Your task to perform on an android device: turn on javascript in the chrome app Image 0: 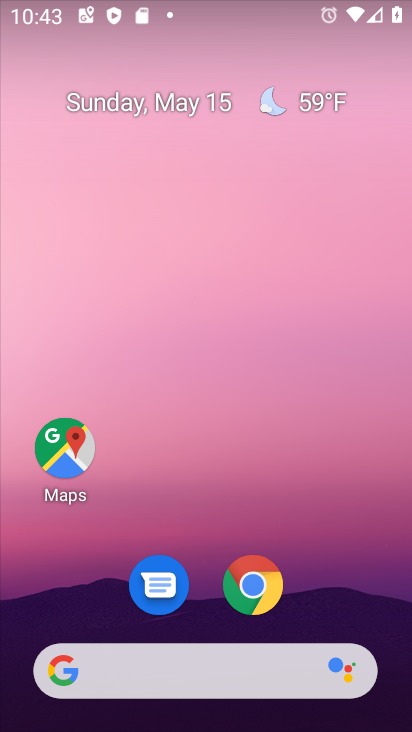
Step 0: click (275, 606)
Your task to perform on an android device: turn on javascript in the chrome app Image 1: 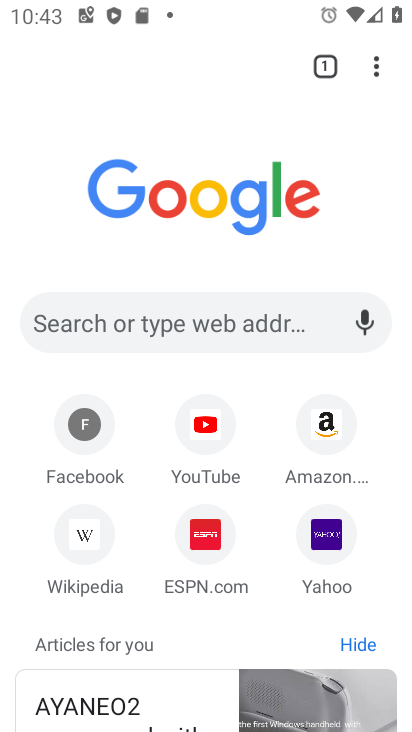
Step 1: click (374, 69)
Your task to perform on an android device: turn on javascript in the chrome app Image 2: 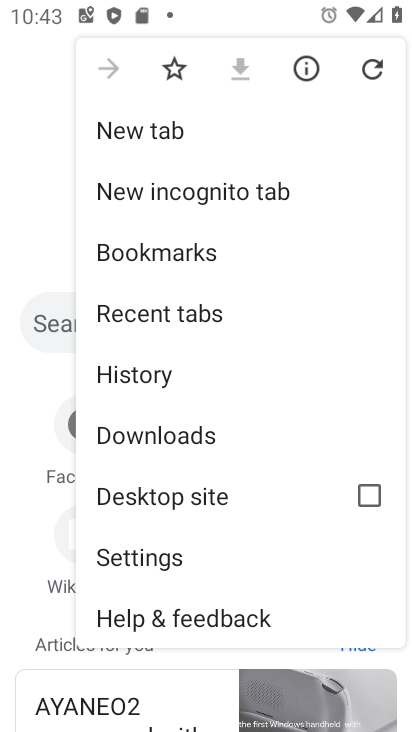
Step 2: click (174, 556)
Your task to perform on an android device: turn on javascript in the chrome app Image 3: 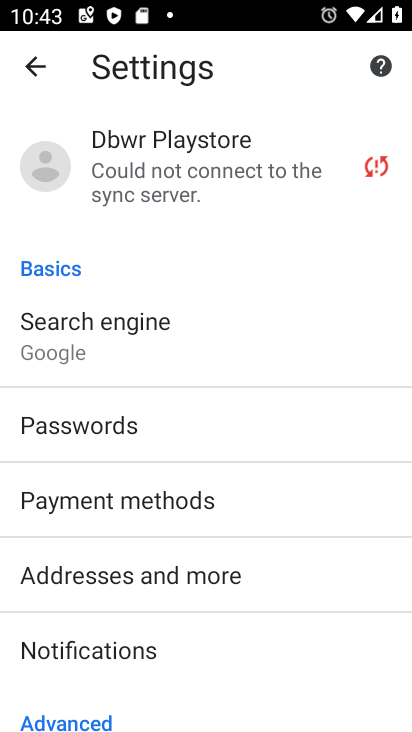
Step 3: drag from (236, 636) to (269, 250)
Your task to perform on an android device: turn on javascript in the chrome app Image 4: 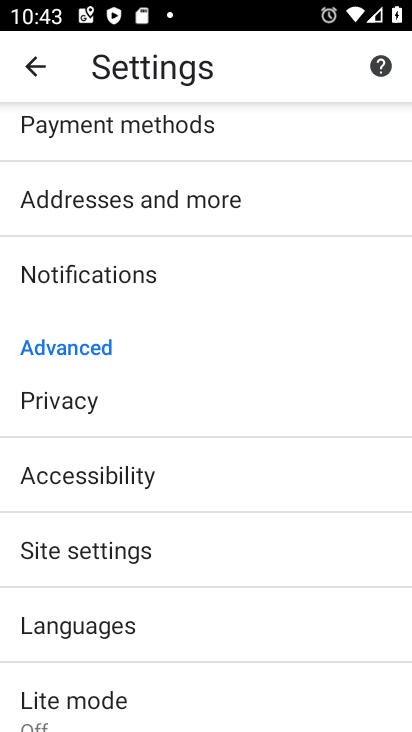
Step 4: click (166, 551)
Your task to perform on an android device: turn on javascript in the chrome app Image 5: 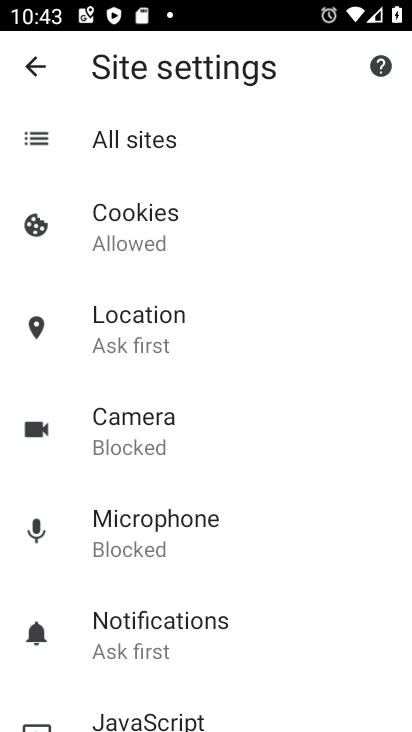
Step 5: drag from (267, 532) to (306, 217)
Your task to perform on an android device: turn on javascript in the chrome app Image 6: 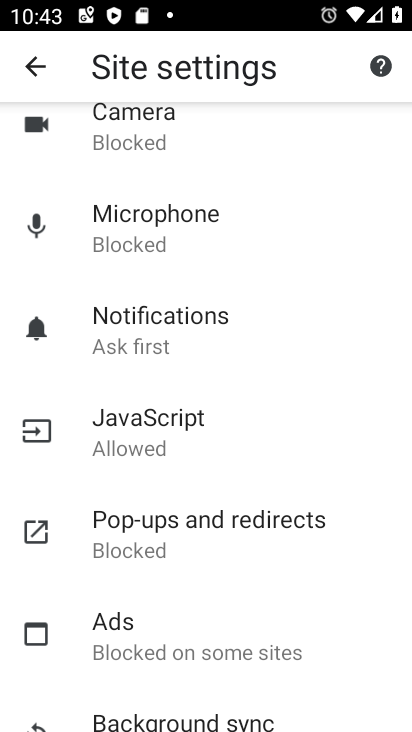
Step 6: click (204, 438)
Your task to perform on an android device: turn on javascript in the chrome app Image 7: 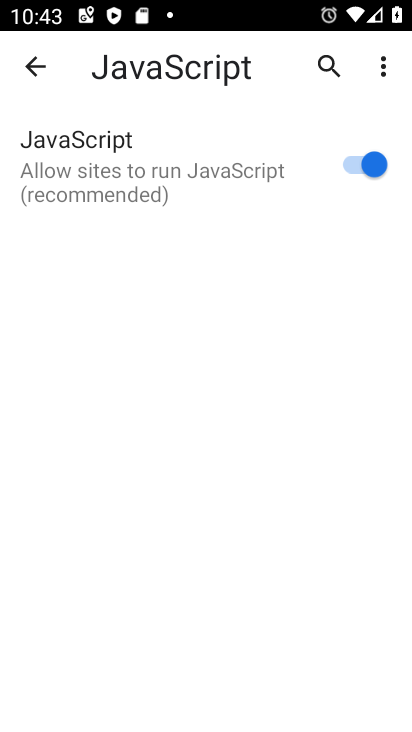
Step 7: task complete